Your task to perform on an android device: see sites visited before in the chrome app Image 0: 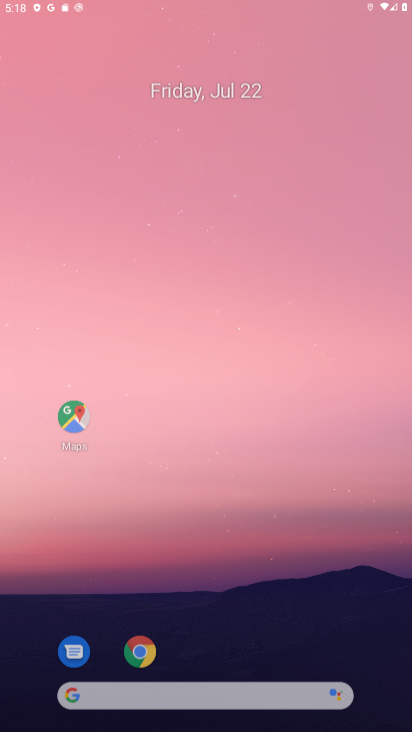
Step 0: press home button
Your task to perform on an android device: see sites visited before in the chrome app Image 1: 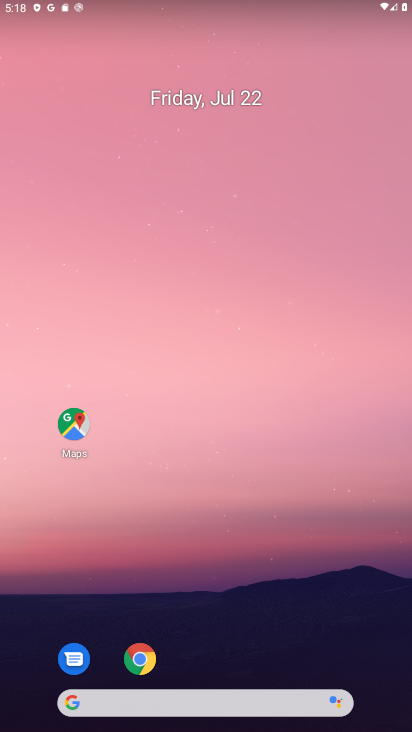
Step 1: drag from (195, 673) to (225, 209)
Your task to perform on an android device: see sites visited before in the chrome app Image 2: 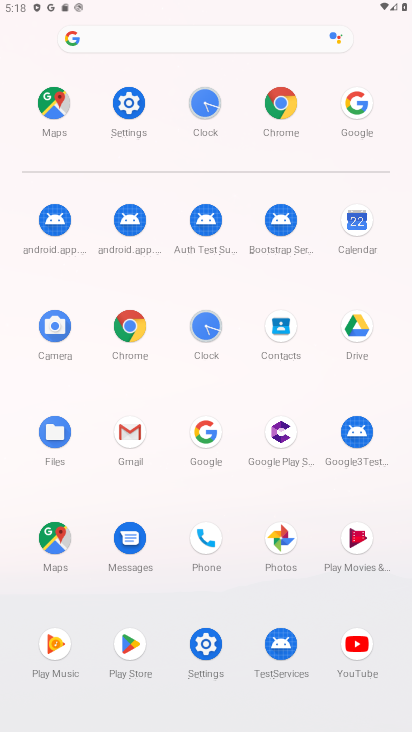
Step 2: click (131, 323)
Your task to perform on an android device: see sites visited before in the chrome app Image 3: 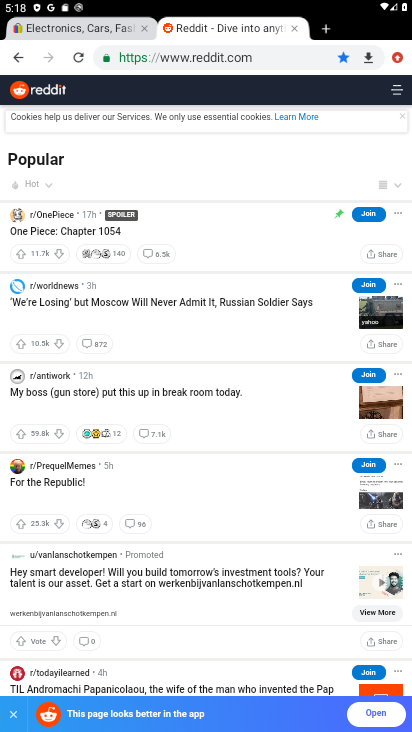
Step 3: click (400, 50)
Your task to perform on an android device: see sites visited before in the chrome app Image 4: 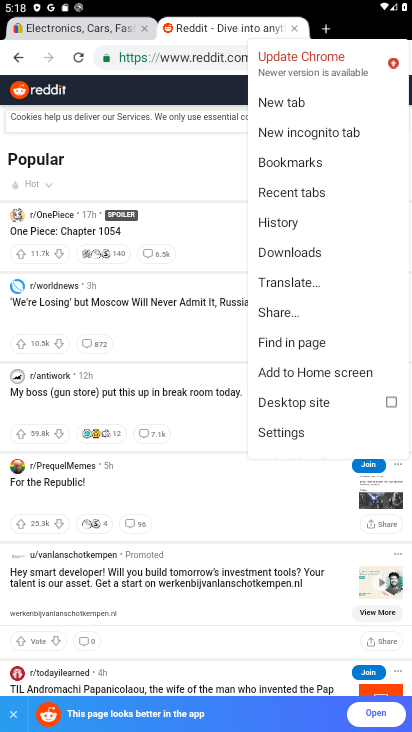
Step 4: click (296, 219)
Your task to perform on an android device: see sites visited before in the chrome app Image 5: 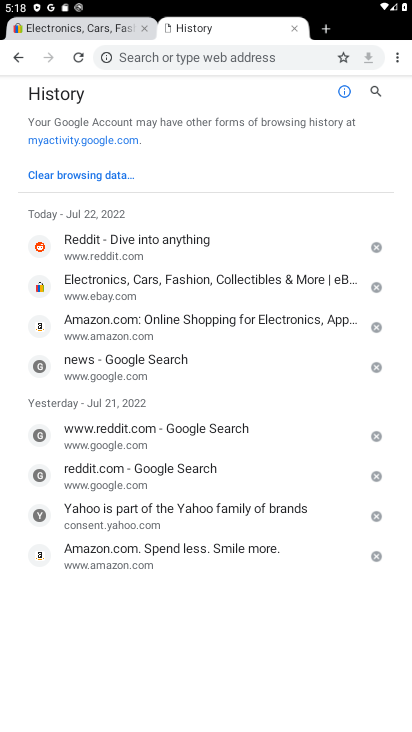
Step 5: task complete